Your task to perform on an android device: turn on bluetooth scan Image 0: 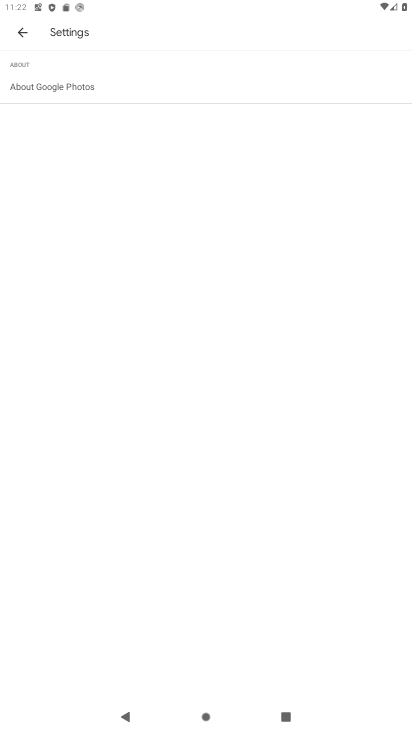
Step 0: press home button
Your task to perform on an android device: turn on bluetooth scan Image 1: 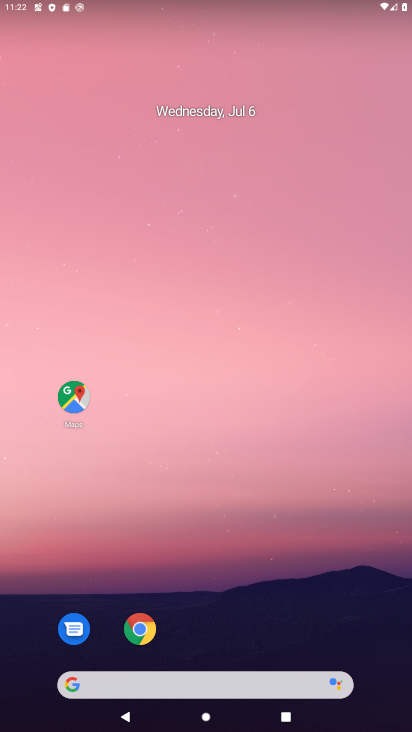
Step 1: drag from (256, 604) to (220, 148)
Your task to perform on an android device: turn on bluetooth scan Image 2: 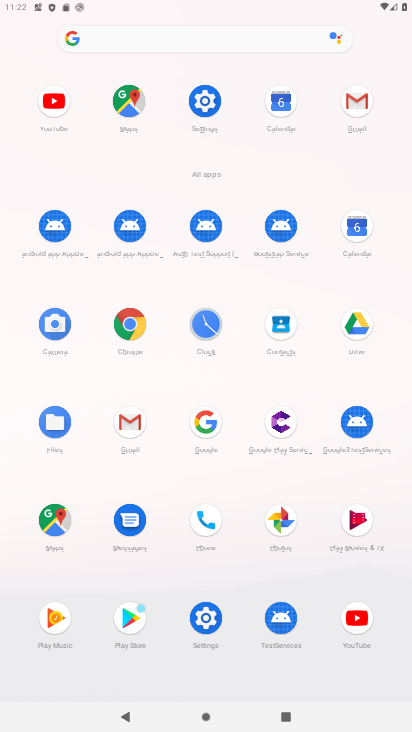
Step 2: click (207, 105)
Your task to perform on an android device: turn on bluetooth scan Image 3: 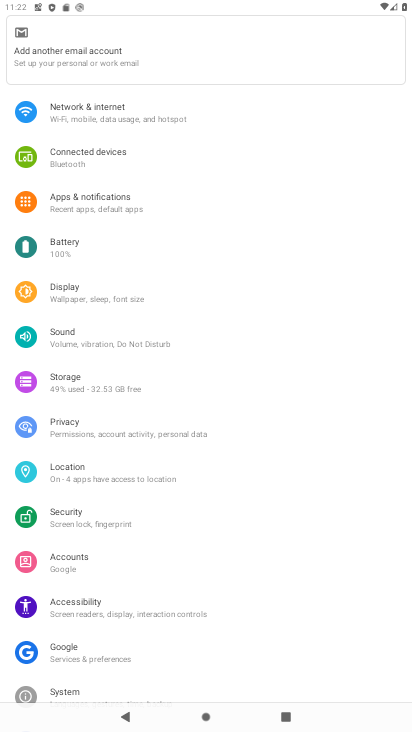
Step 3: click (104, 472)
Your task to perform on an android device: turn on bluetooth scan Image 4: 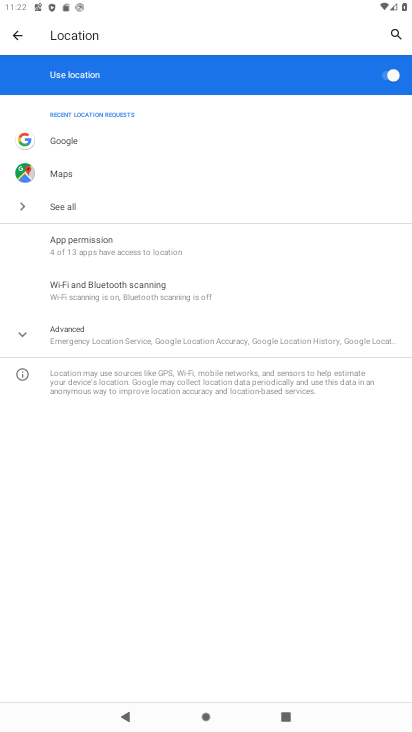
Step 4: click (137, 298)
Your task to perform on an android device: turn on bluetooth scan Image 5: 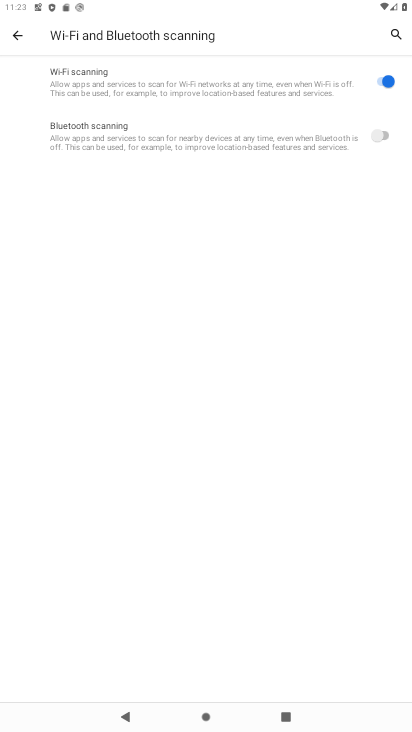
Step 5: click (381, 133)
Your task to perform on an android device: turn on bluetooth scan Image 6: 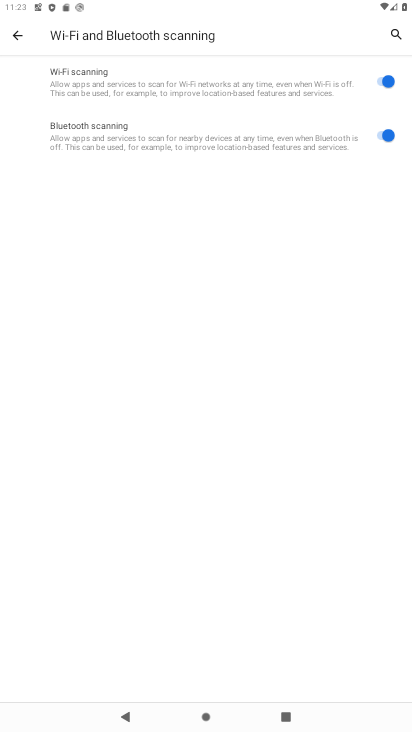
Step 6: task complete